Your task to perform on an android device: refresh tabs in the chrome app Image 0: 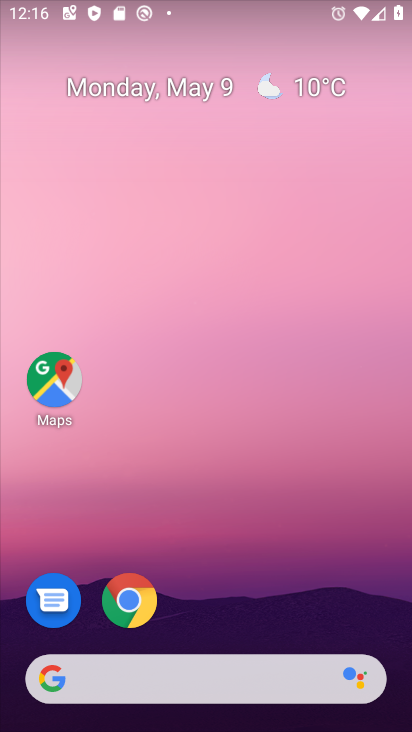
Step 0: click (122, 597)
Your task to perform on an android device: refresh tabs in the chrome app Image 1: 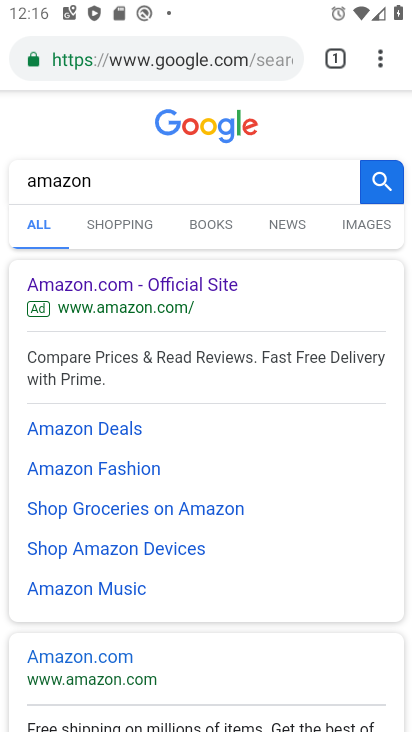
Step 1: click (383, 59)
Your task to perform on an android device: refresh tabs in the chrome app Image 2: 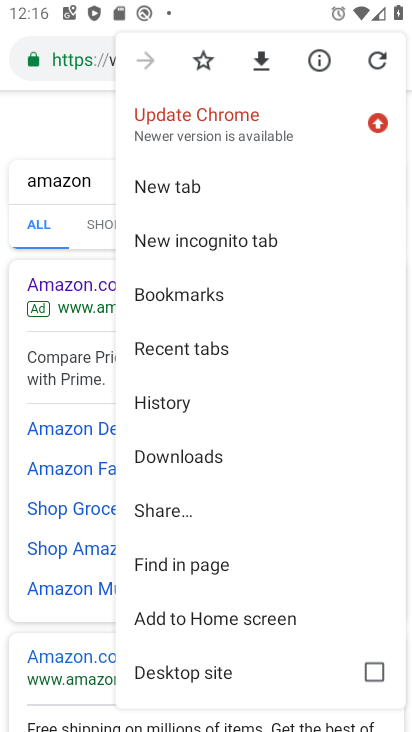
Step 2: click (376, 62)
Your task to perform on an android device: refresh tabs in the chrome app Image 3: 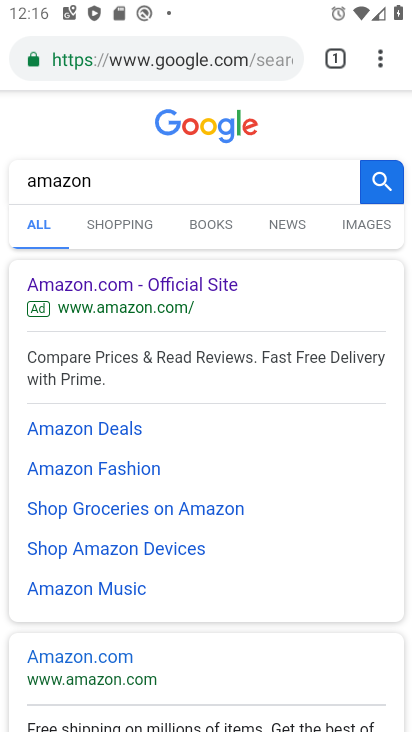
Step 3: task complete